Your task to perform on an android device: turn on improve location accuracy Image 0: 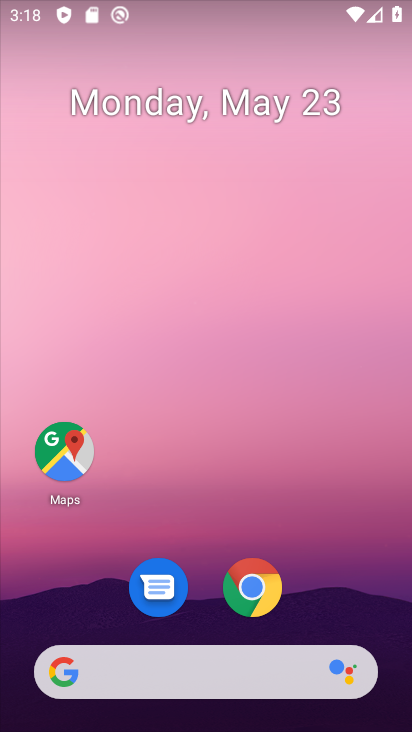
Step 0: drag from (217, 675) to (300, 29)
Your task to perform on an android device: turn on improve location accuracy Image 1: 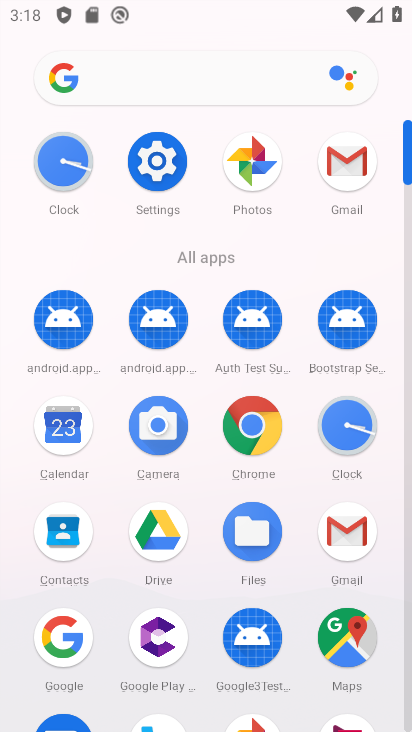
Step 1: click (164, 170)
Your task to perform on an android device: turn on improve location accuracy Image 2: 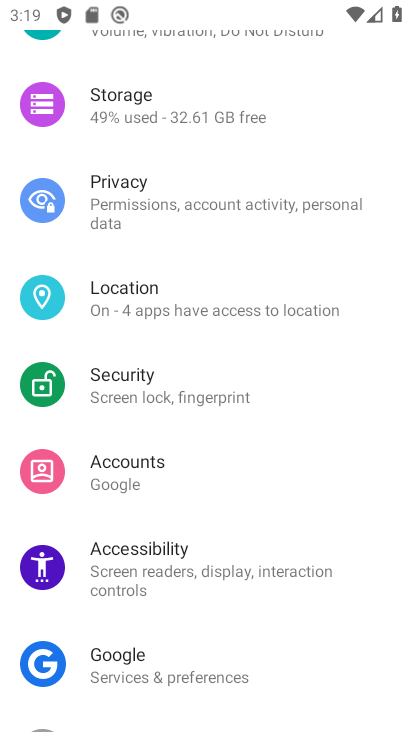
Step 2: click (156, 287)
Your task to perform on an android device: turn on improve location accuracy Image 3: 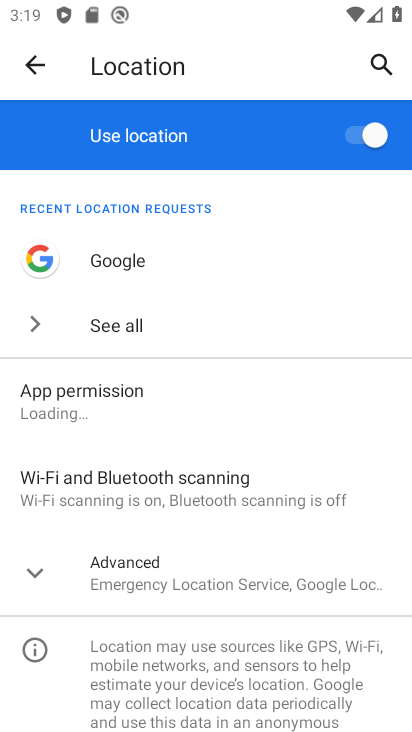
Step 3: click (138, 580)
Your task to perform on an android device: turn on improve location accuracy Image 4: 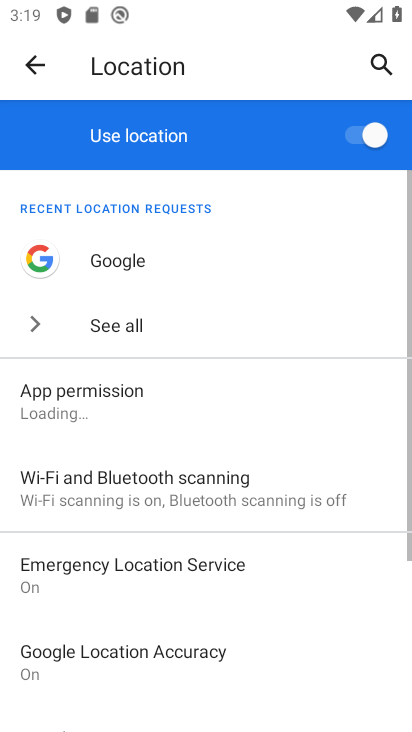
Step 4: drag from (195, 577) to (306, 229)
Your task to perform on an android device: turn on improve location accuracy Image 5: 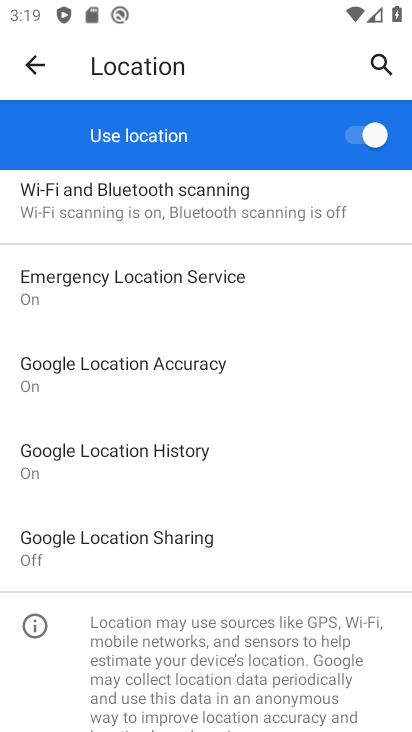
Step 5: click (180, 373)
Your task to perform on an android device: turn on improve location accuracy Image 6: 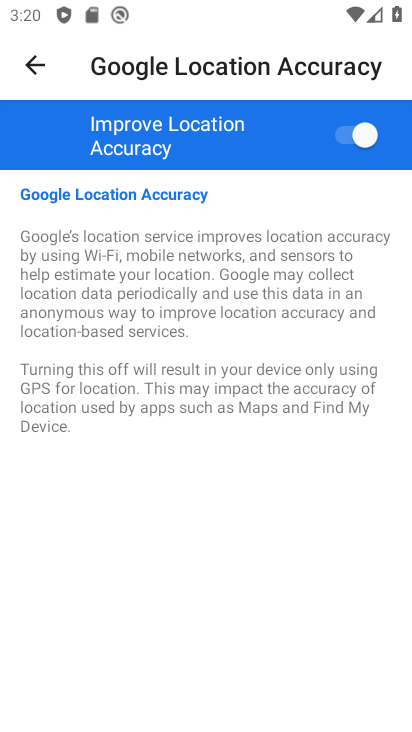
Step 6: task complete